Your task to perform on an android device: Go to Android settings Image 0: 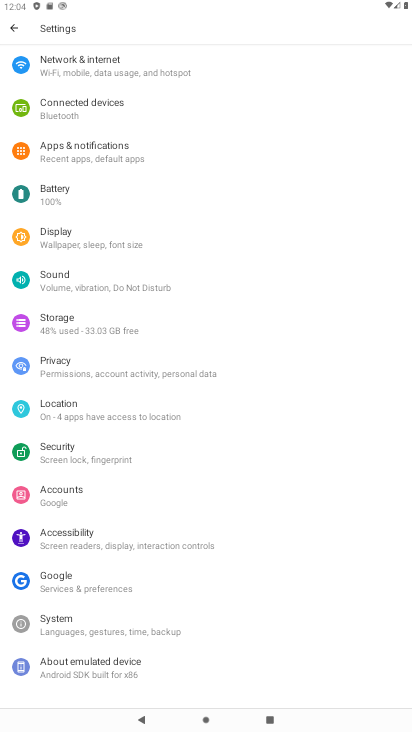
Step 0: task complete